Your task to perform on an android device: Open wifi settings Image 0: 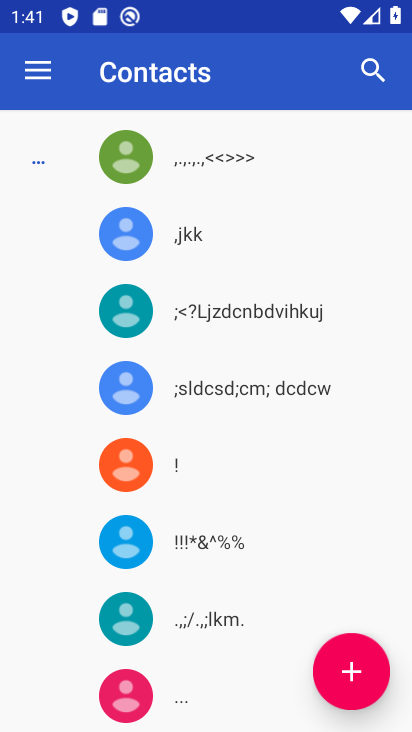
Step 0: press home button
Your task to perform on an android device: Open wifi settings Image 1: 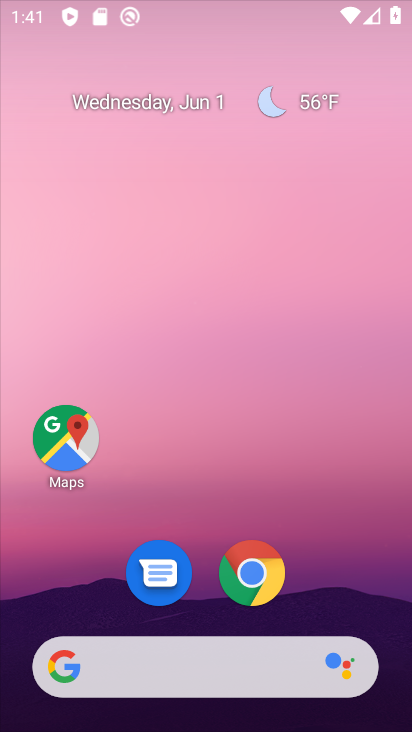
Step 1: drag from (382, 611) to (272, 50)
Your task to perform on an android device: Open wifi settings Image 2: 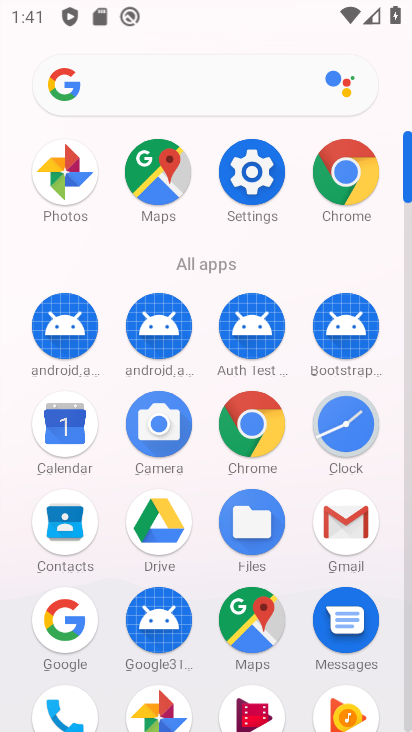
Step 2: click (269, 158)
Your task to perform on an android device: Open wifi settings Image 3: 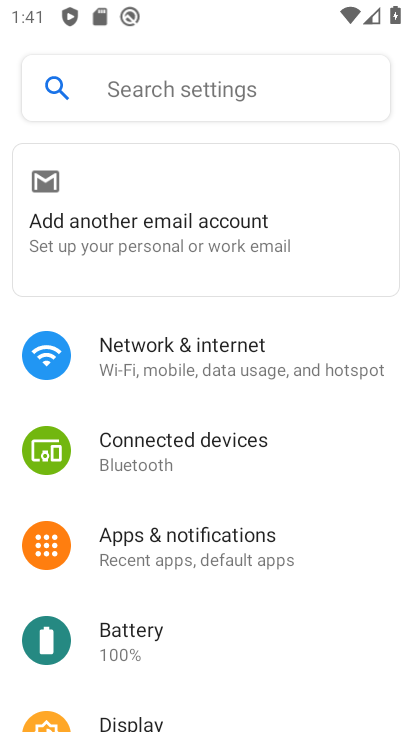
Step 3: click (230, 368)
Your task to perform on an android device: Open wifi settings Image 4: 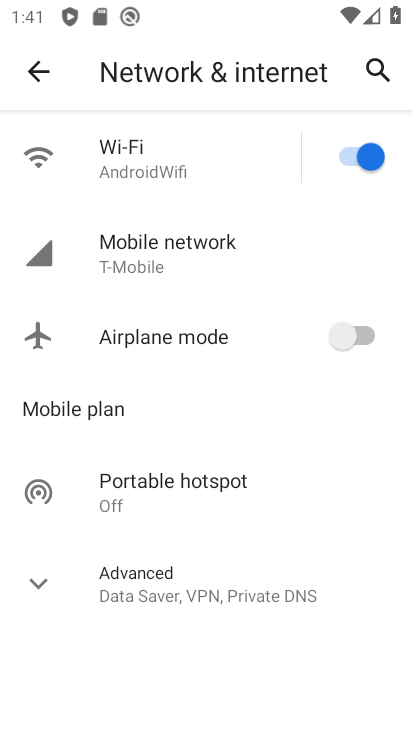
Step 4: click (175, 179)
Your task to perform on an android device: Open wifi settings Image 5: 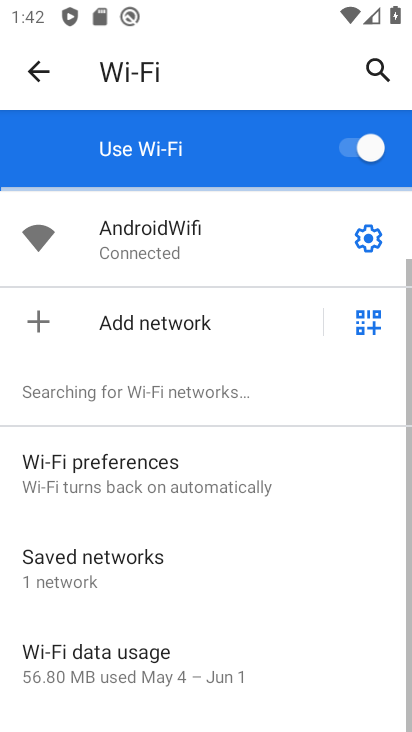
Step 5: task complete